Your task to perform on an android device: check out phone information Image 0: 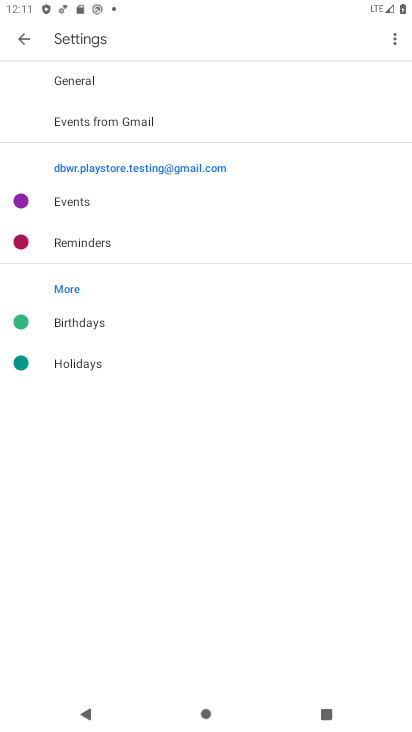
Step 0: press home button
Your task to perform on an android device: check out phone information Image 1: 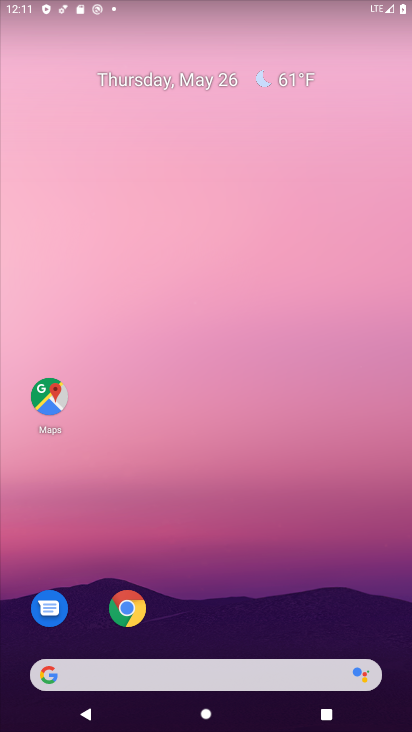
Step 1: drag from (356, 630) to (347, 71)
Your task to perform on an android device: check out phone information Image 2: 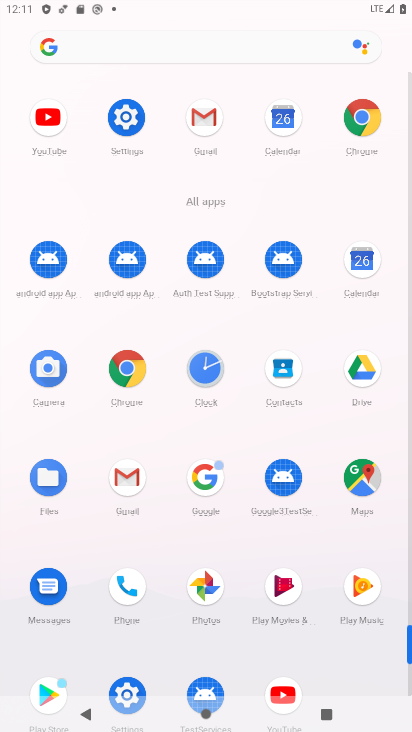
Step 2: click (128, 687)
Your task to perform on an android device: check out phone information Image 3: 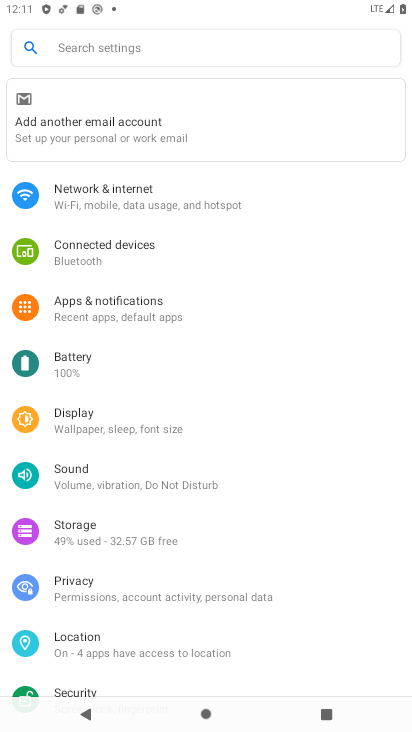
Step 3: drag from (292, 599) to (295, 136)
Your task to perform on an android device: check out phone information Image 4: 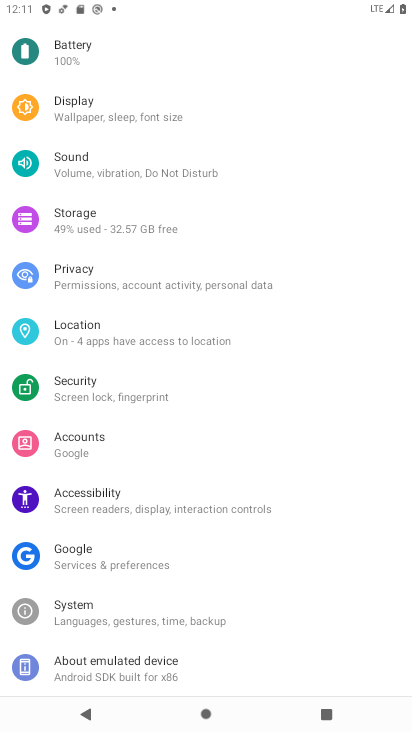
Step 4: click (111, 657)
Your task to perform on an android device: check out phone information Image 5: 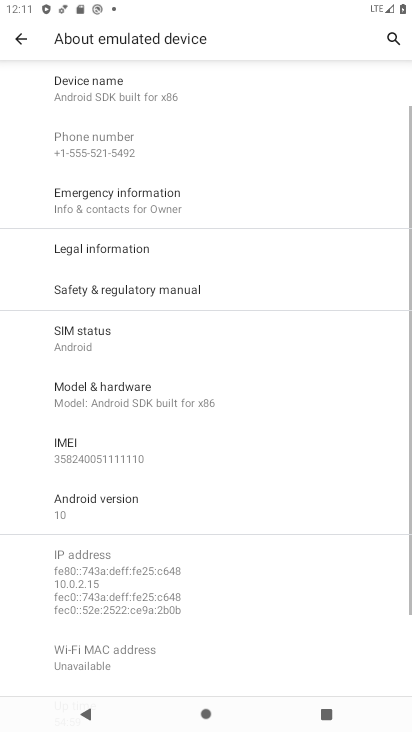
Step 5: task complete